Your task to perform on an android device: View the shopping cart on target.com. Add "razer blackwidow" to the cart on target.com Image 0: 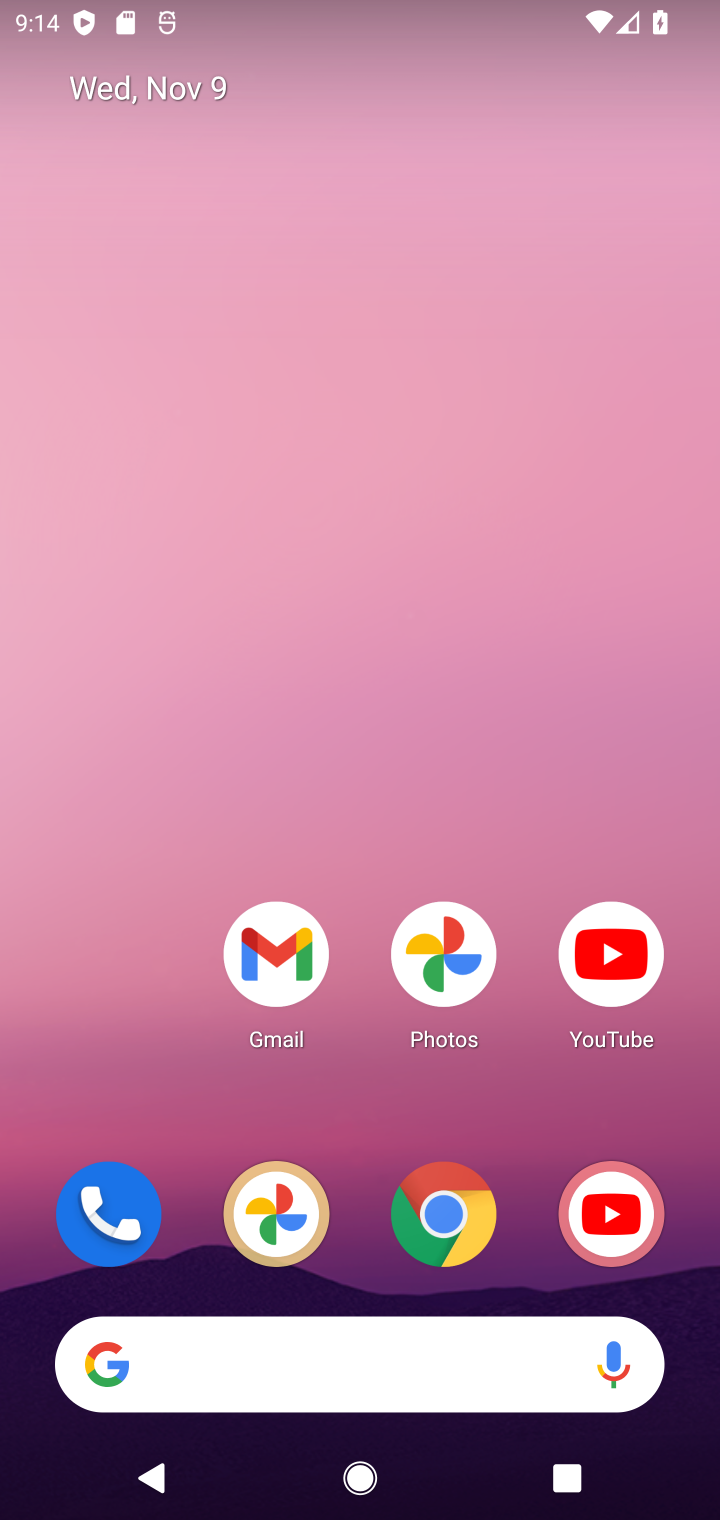
Step 0: drag from (396, 542) to (355, 50)
Your task to perform on an android device: View the shopping cart on target.com. Add "razer blackwidow" to the cart on target.com Image 1: 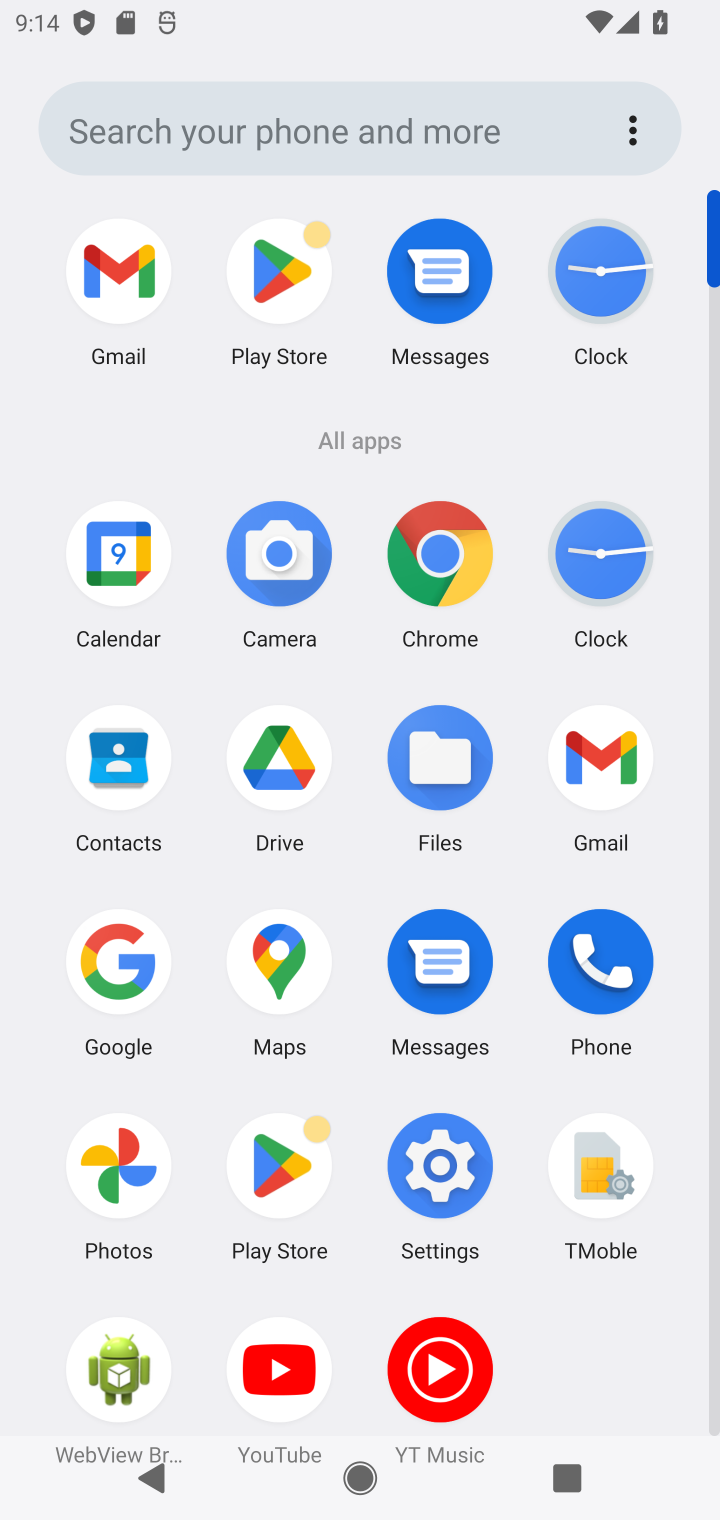
Step 1: click (442, 576)
Your task to perform on an android device: View the shopping cart on target.com. Add "razer blackwidow" to the cart on target.com Image 2: 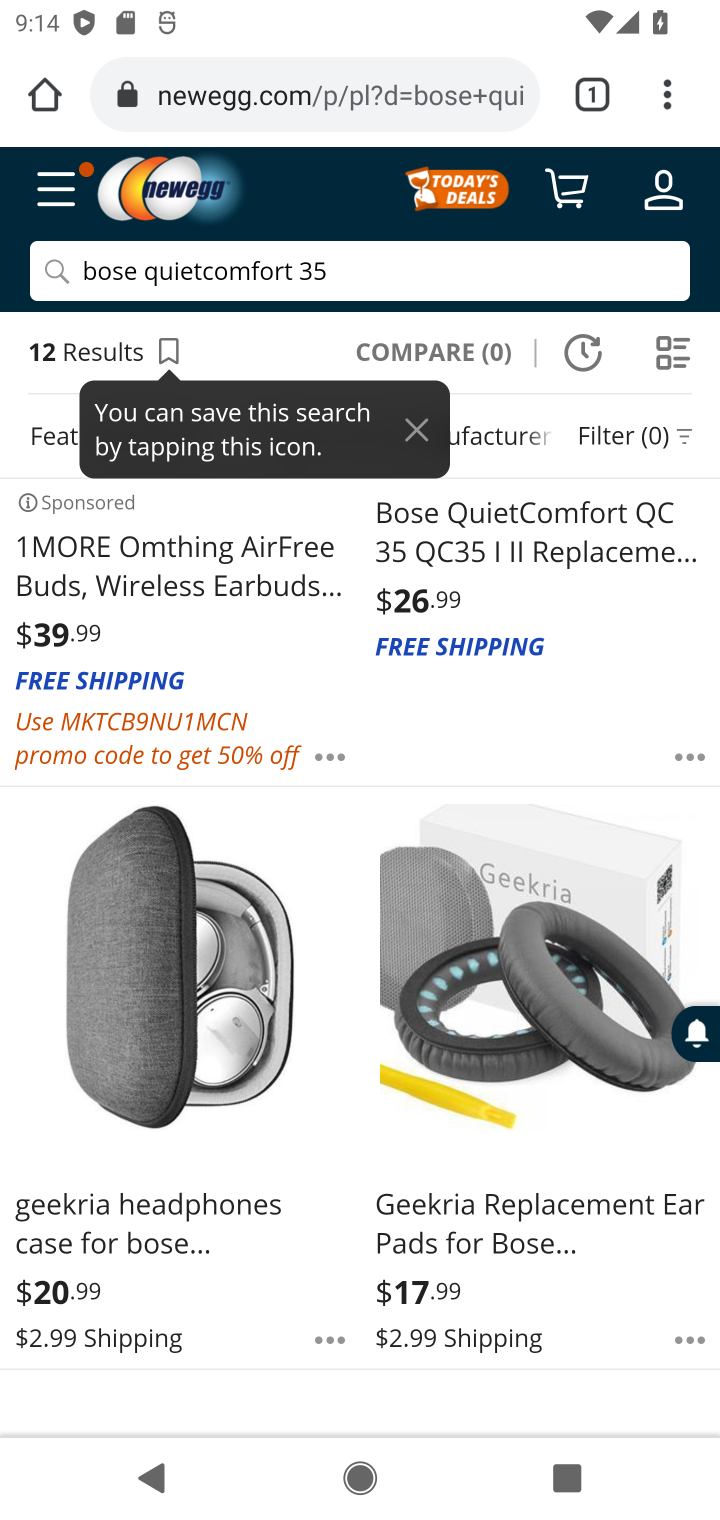
Step 2: click (434, 82)
Your task to perform on an android device: View the shopping cart on target.com. Add "razer blackwidow" to the cart on target.com Image 3: 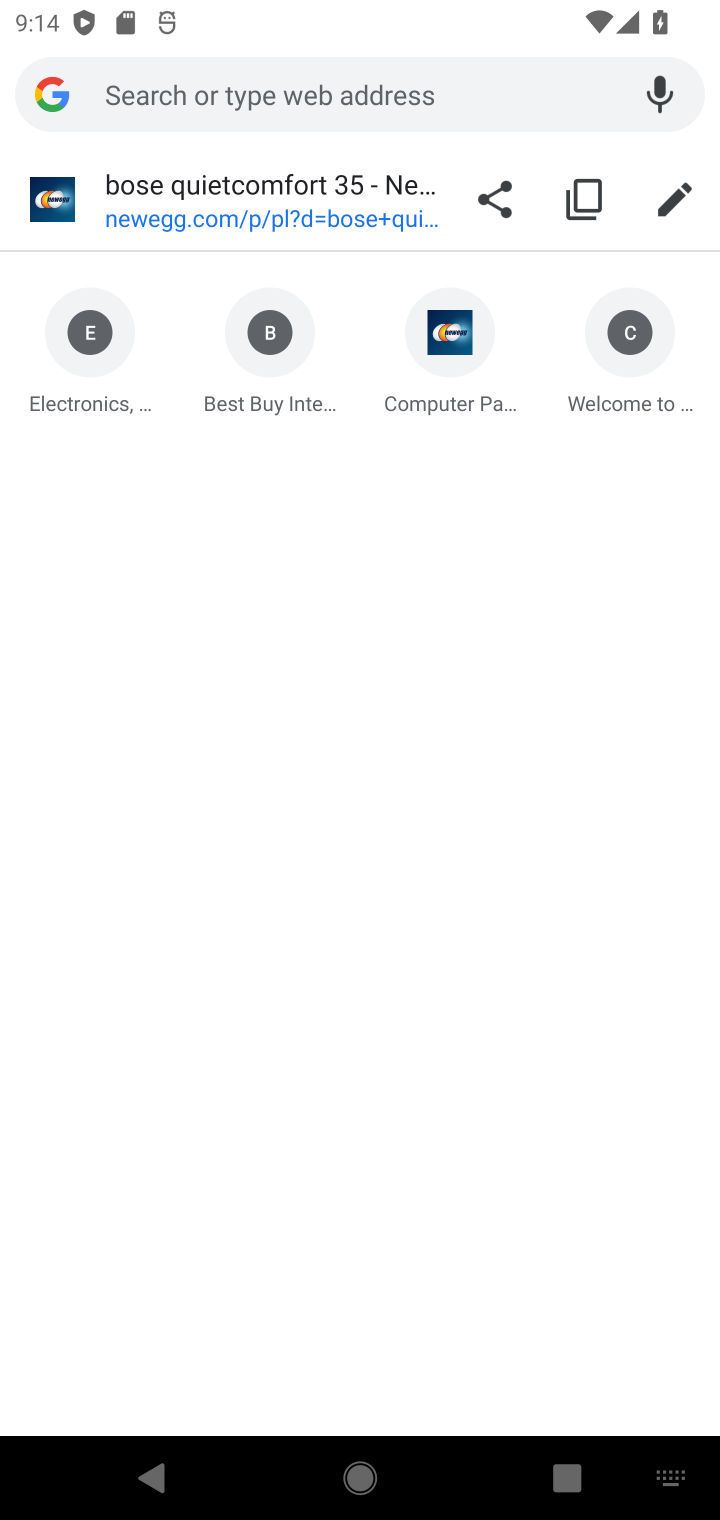
Step 3: type "target.com"
Your task to perform on an android device: View the shopping cart on target.com. Add "razer blackwidow" to the cart on target.com Image 4: 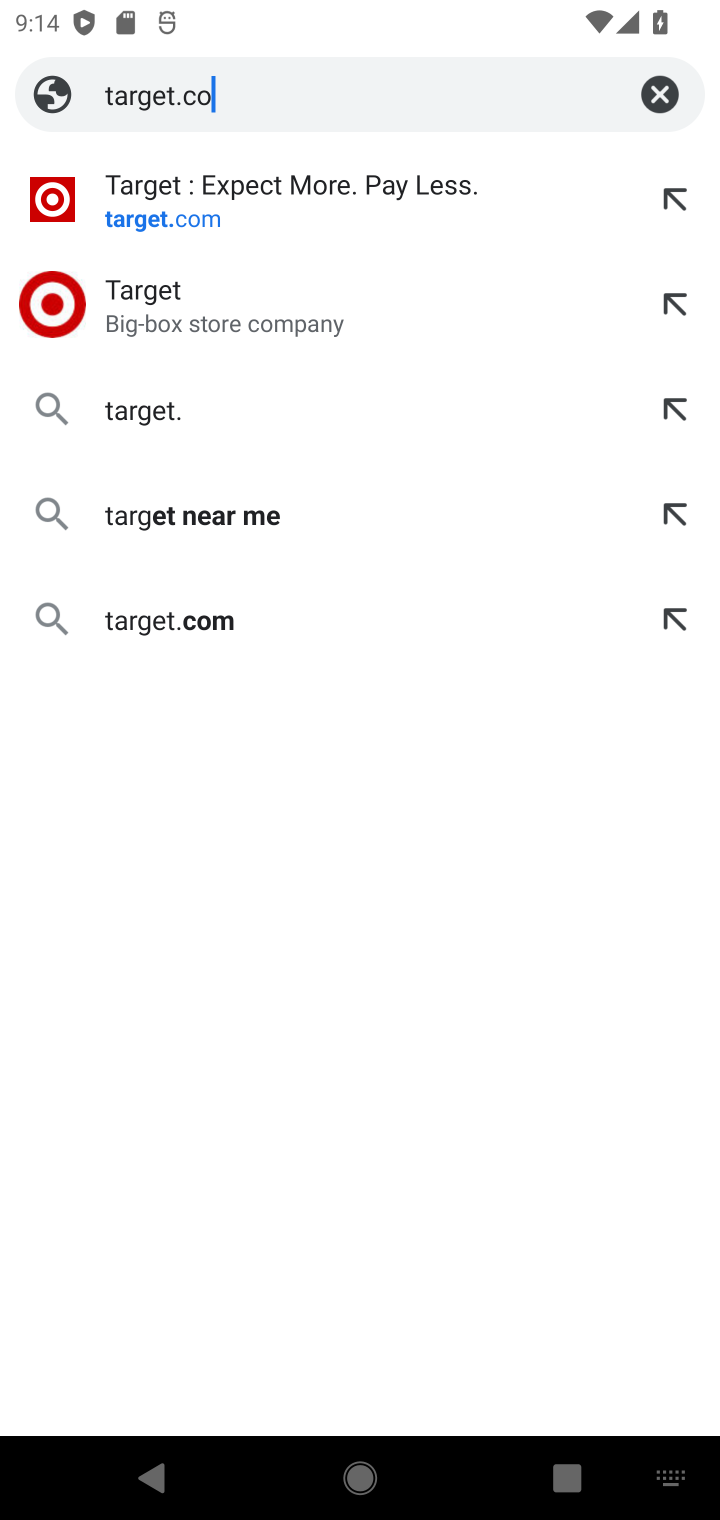
Step 4: press enter
Your task to perform on an android device: View the shopping cart on target.com. Add "razer blackwidow" to the cart on target.com Image 5: 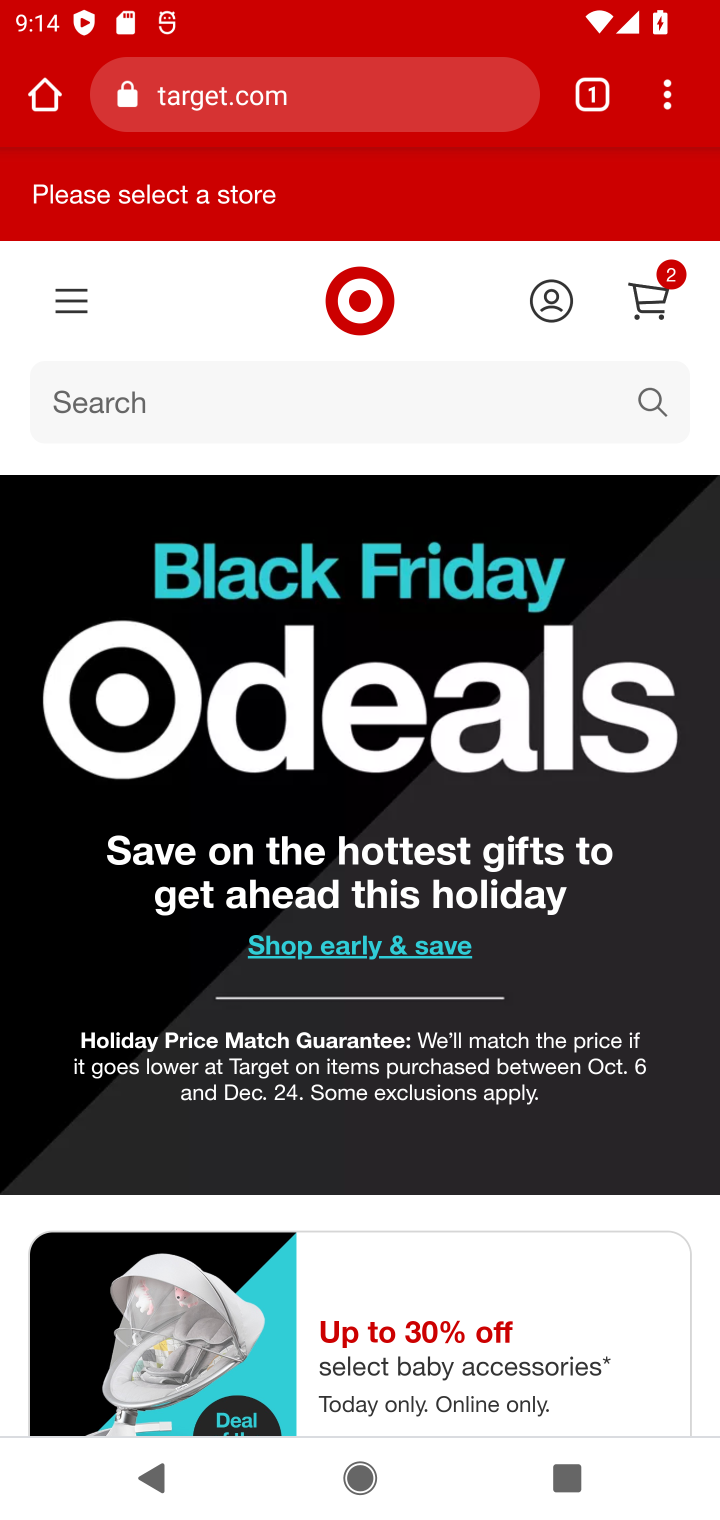
Step 5: click (651, 299)
Your task to perform on an android device: View the shopping cart on target.com. Add "razer blackwidow" to the cart on target.com Image 6: 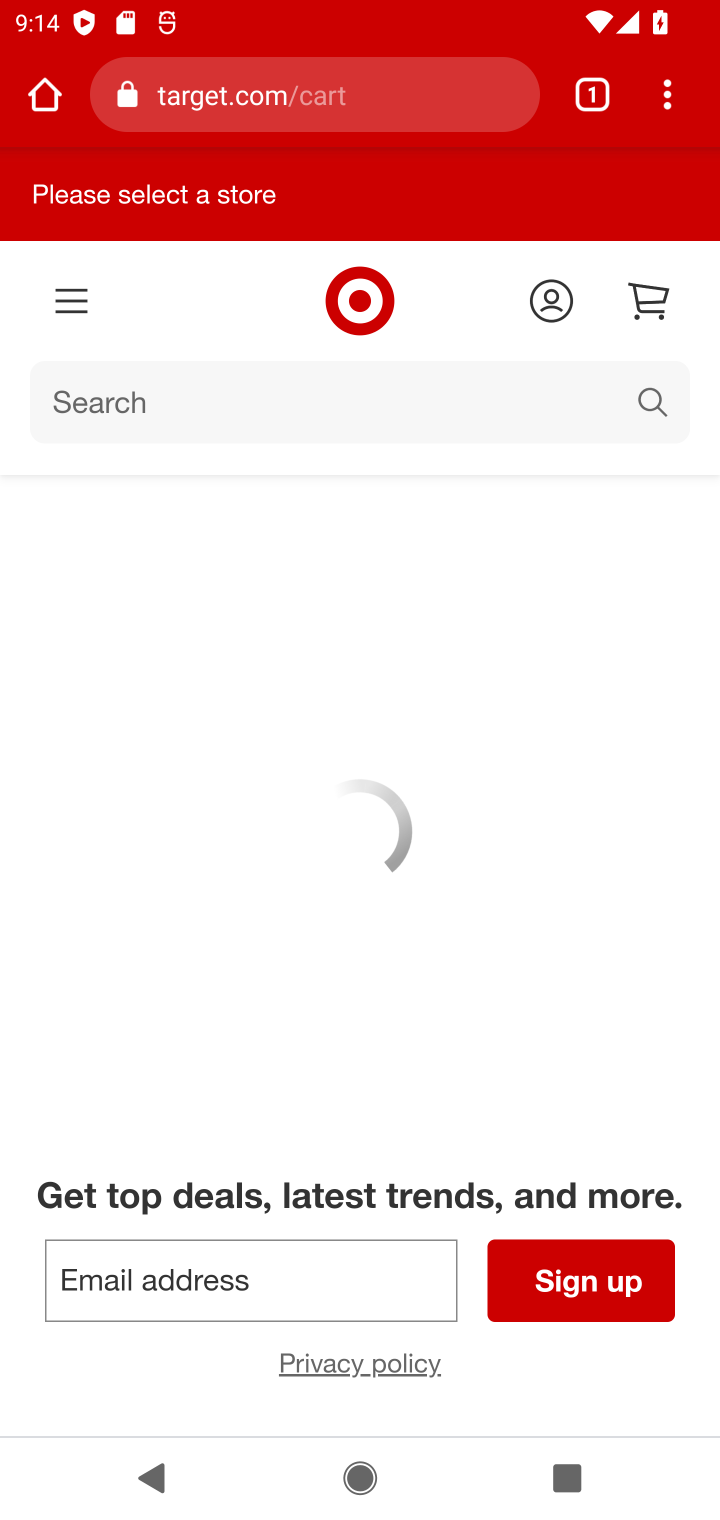
Step 6: click (450, 407)
Your task to perform on an android device: View the shopping cart on target.com. Add "razer blackwidow" to the cart on target.com Image 7: 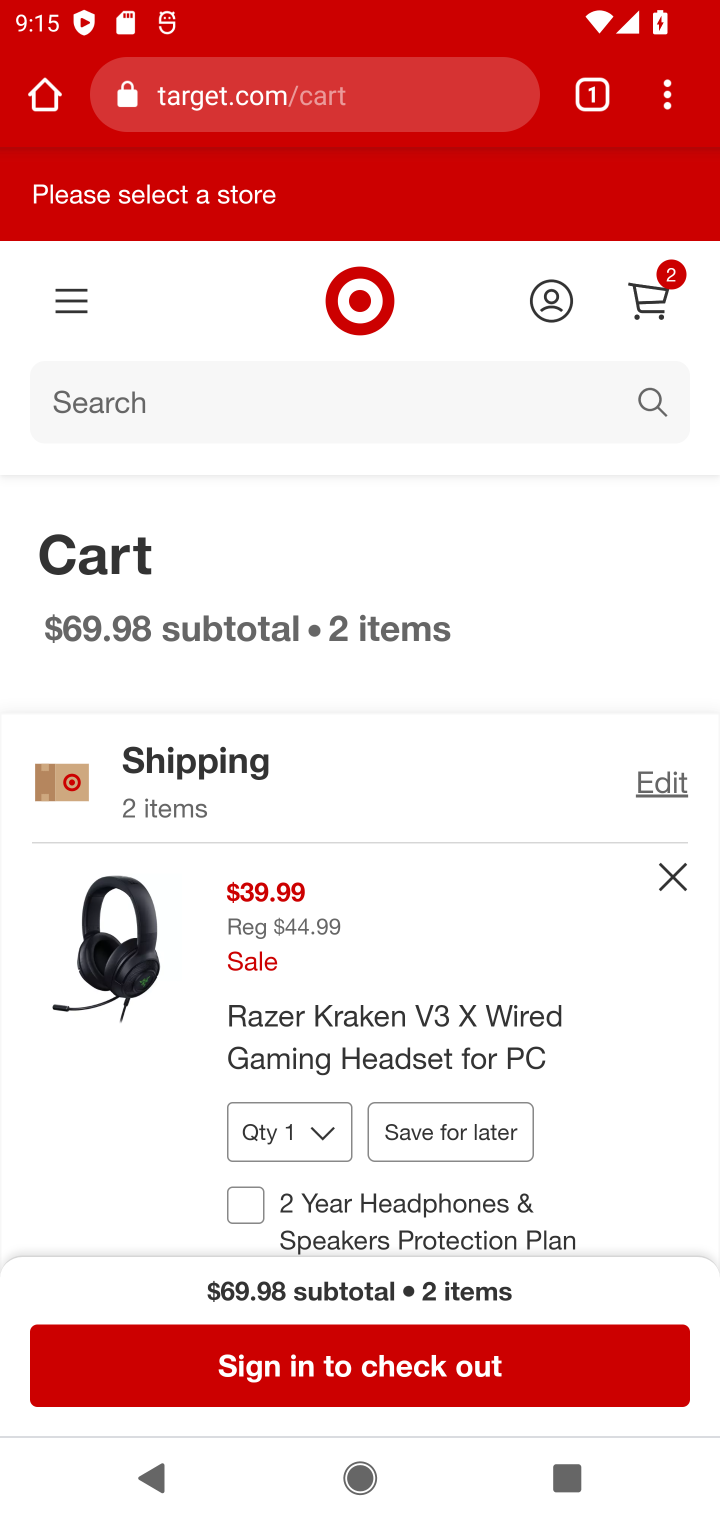
Step 7: type "razer blackwidow"
Your task to perform on an android device: View the shopping cart on target.com. Add "razer blackwidow" to the cart on target.com Image 8: 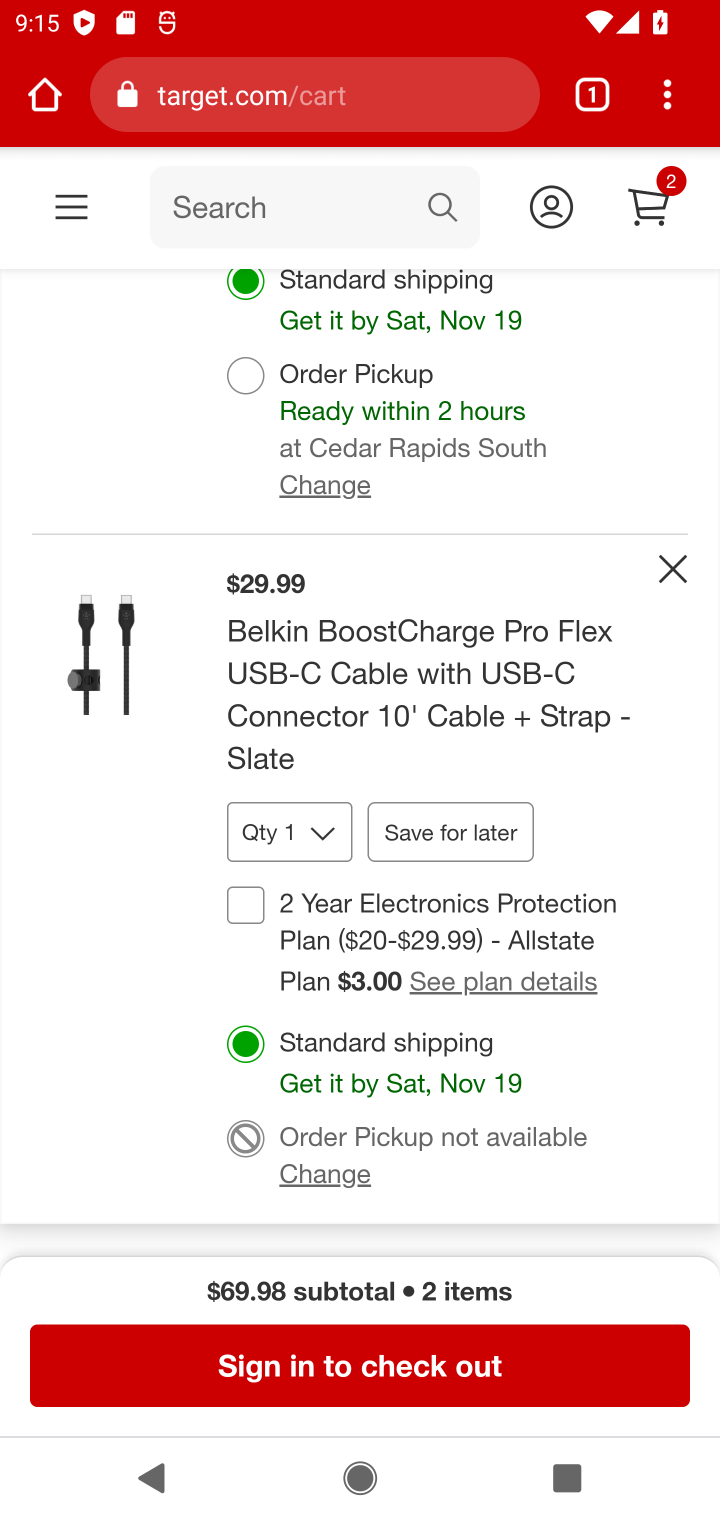
Step 8: click (658, 209)
Your task to perform on an android device: View the shopping cart on target.com. Add "razer blackwidow" to the cart on target.com Image 9: 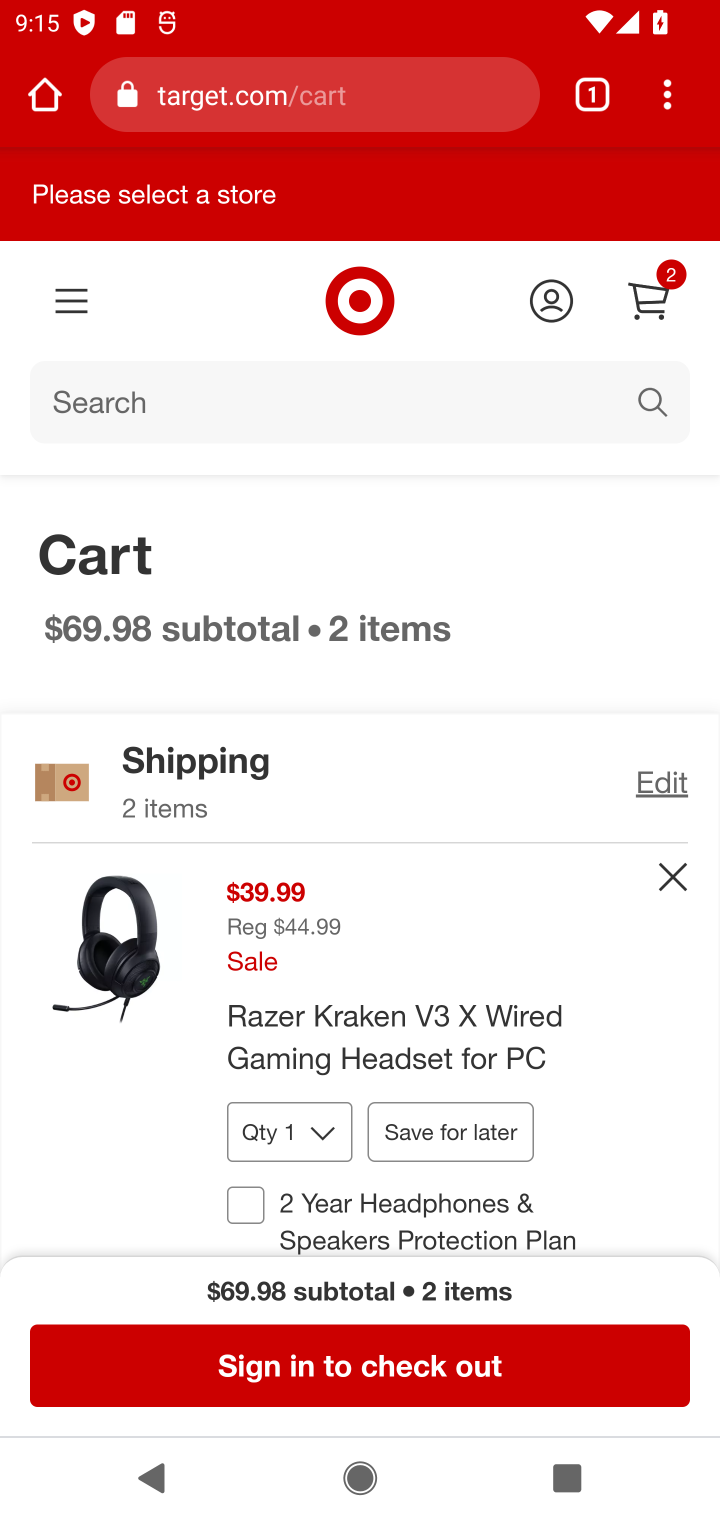
Step 9: press back button
Your task to perform on an android device: View the shopping cart on target.com. Add "razer blackwidow" to the cart on target.com Image 10: 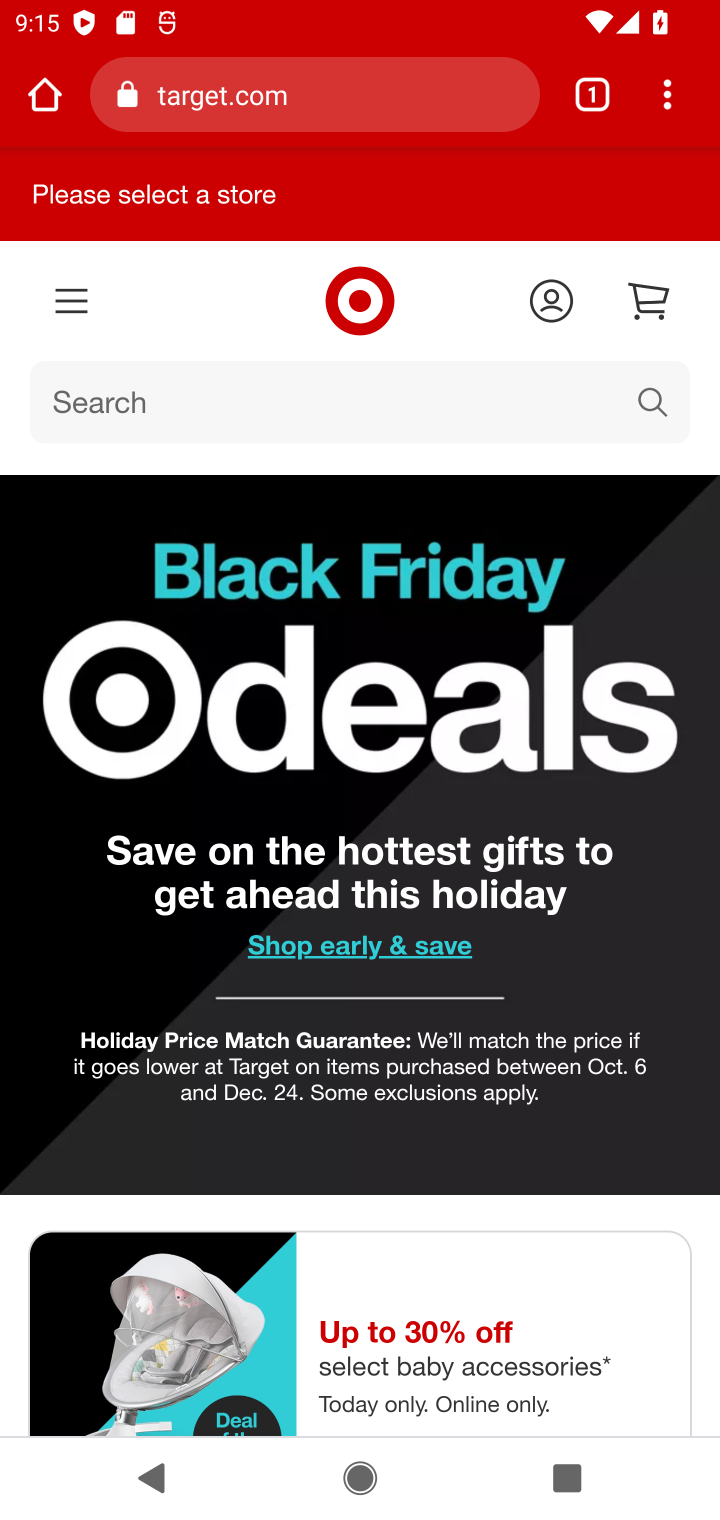
Step 10: click (501, 420)
Your task to perform on an android device: View the shopping cart on target.com. Add "razer blackwidow" to the cart on target.com Image 11: 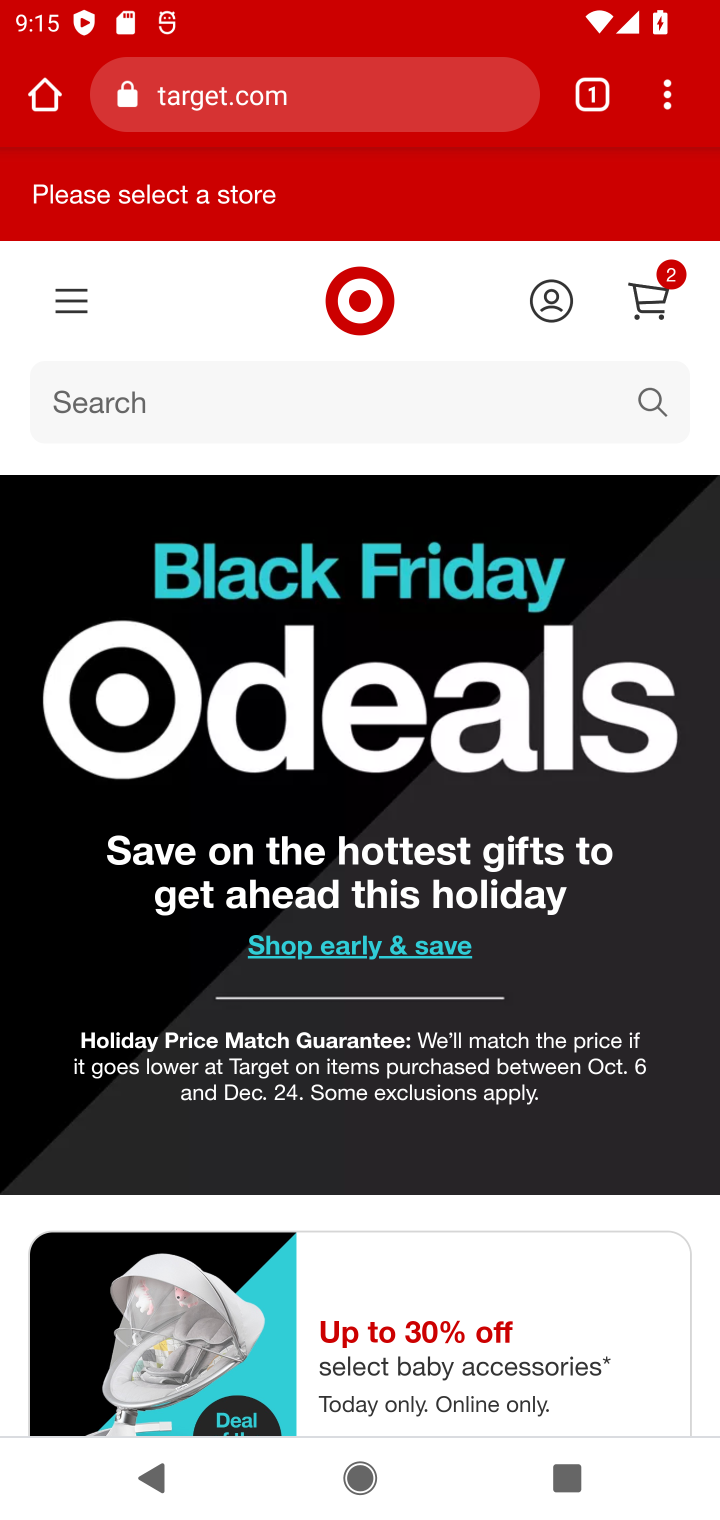
Step 11: type "razer"
Your task to perform on an android device: View the shopping cart on target.com. Add "razer blackwidow" to the cart on target.com Image 12: 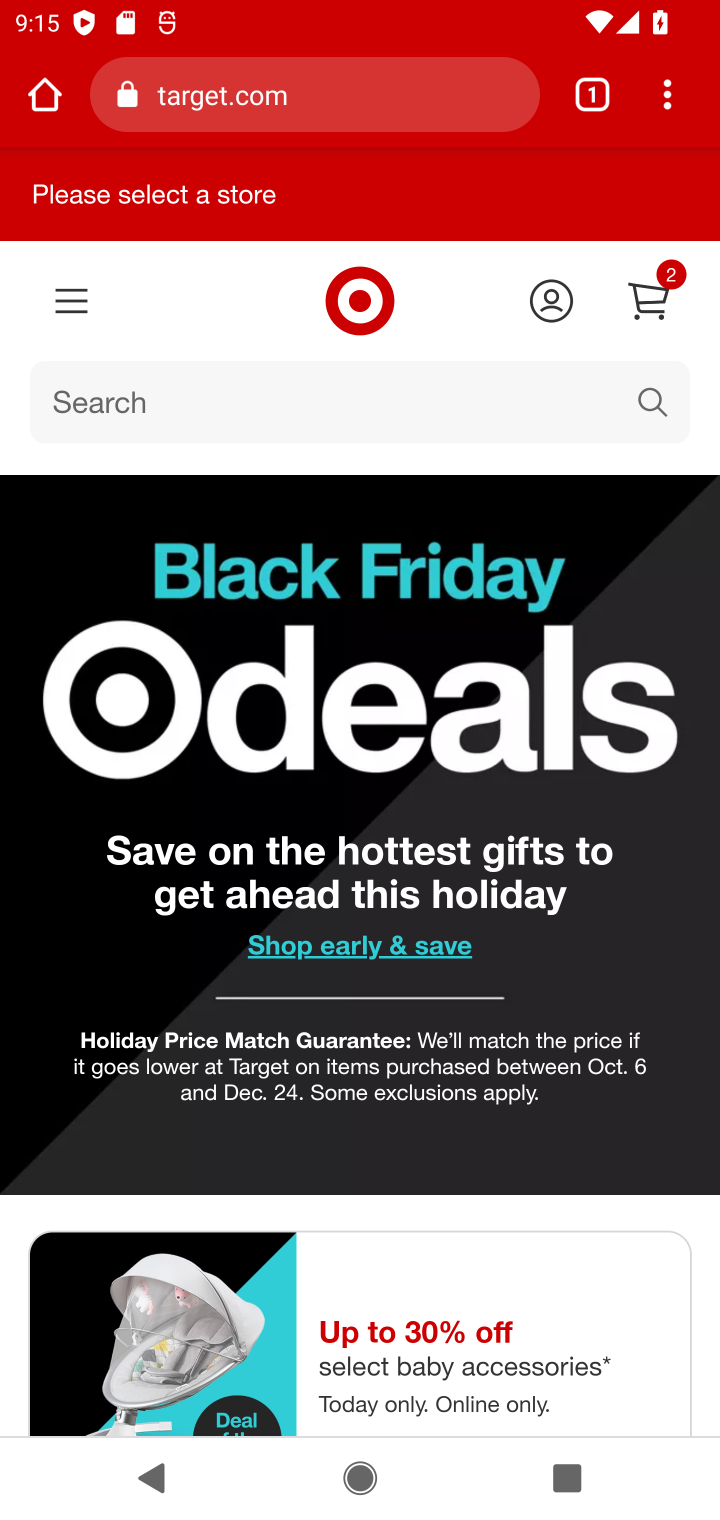
Step 12: click (380, 406)
Your task to perform on an android device: View the shopping cart on target.com. Add "razer blackwidow" to the cart on target.com Image 13: 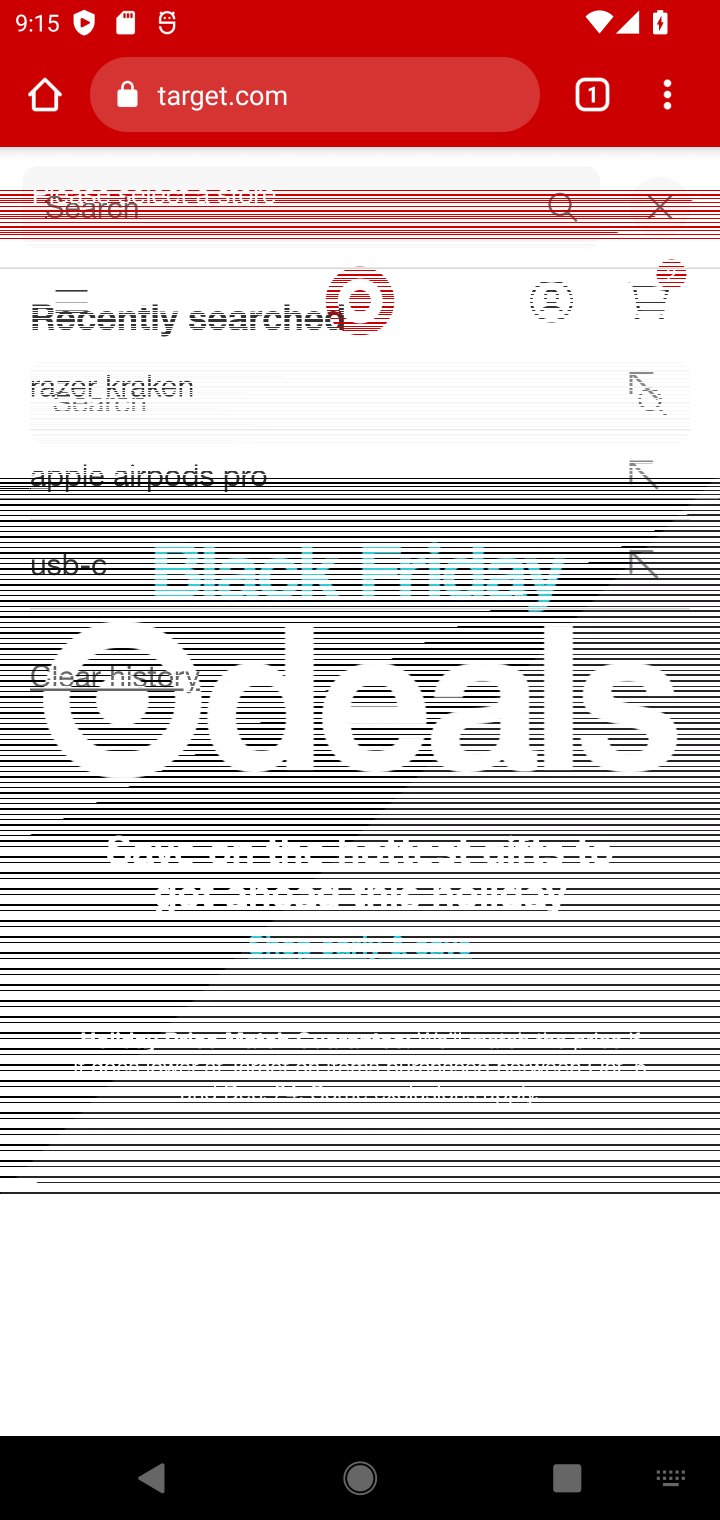
Step 13: type "razer  blackwidow"
Your task to perform on an android device: View the shopping cart on target.com. Add "razer blackwidow" to the cart on target.com Image 14: 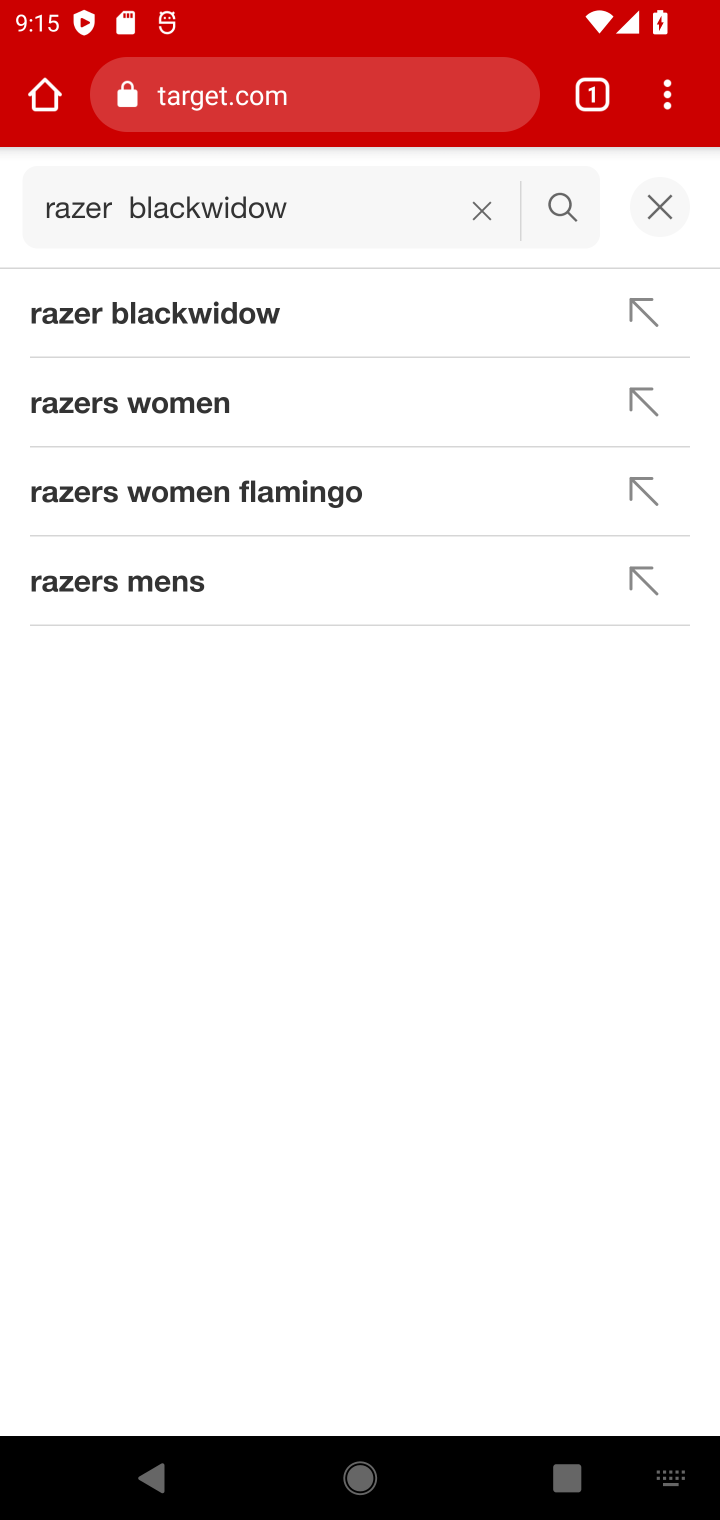
Step 14: press enter
Your task to perform on an android device: View the shopping cart on target.com. Add "razer blackwidow" to the cart on target.com Image 15: 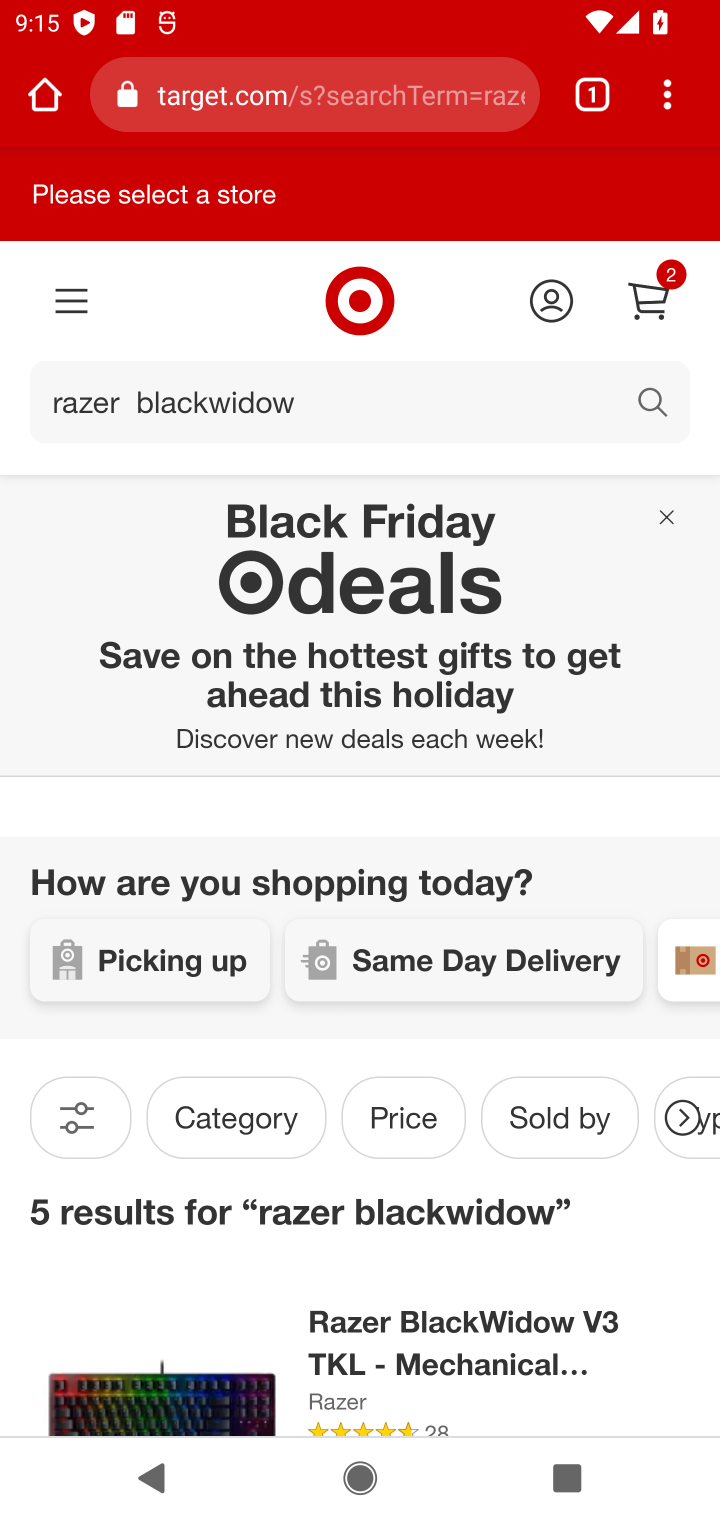
Step 15: drag from (285, 1193) to (409, 429)
Your task to perform on an android device: View the shopping cart on target.com. Add "razer blackwidow" to the cart on target.com Image 16: 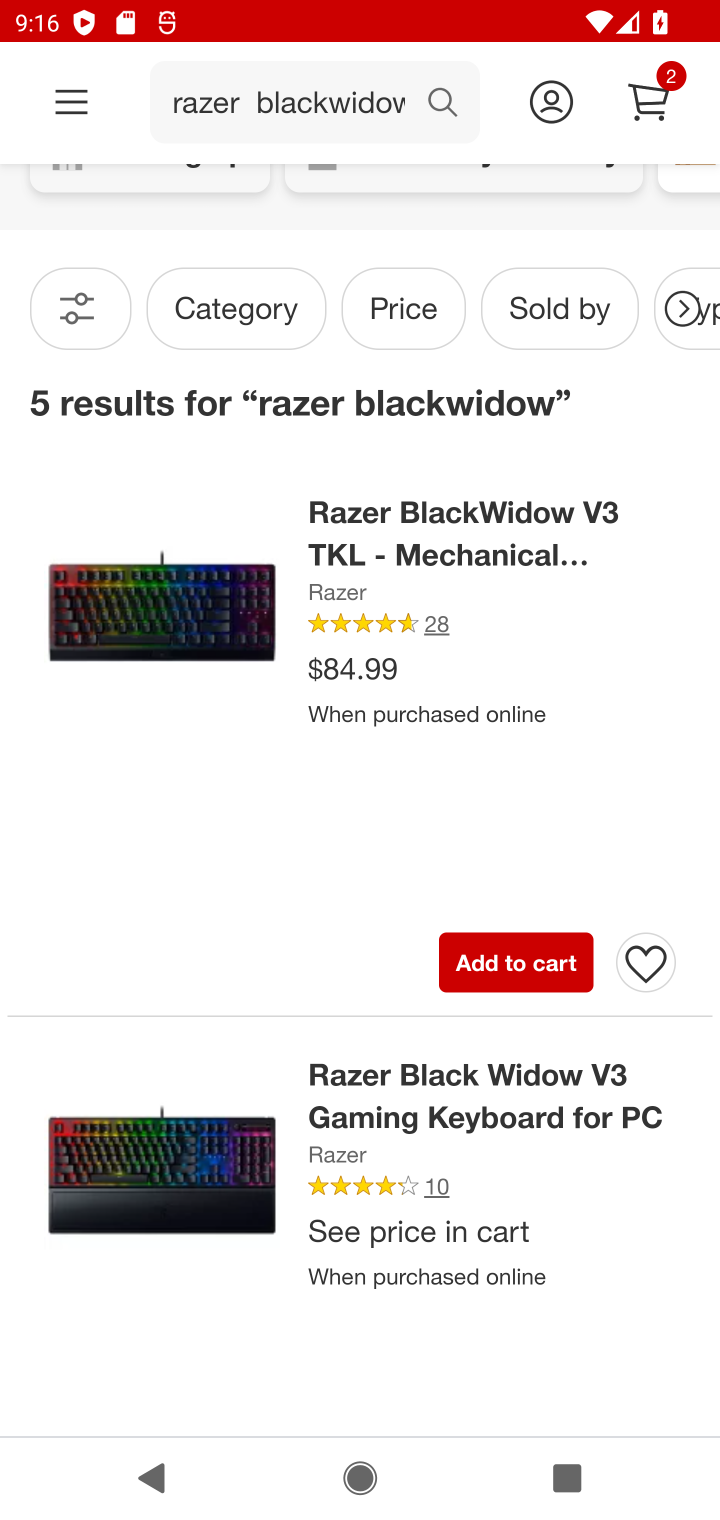
Step 16: click (491, 970)
Your task to perform on an android device: View the shopping cart on target.com. Add "razer blackwidow" to the cart on target.com Image 17: 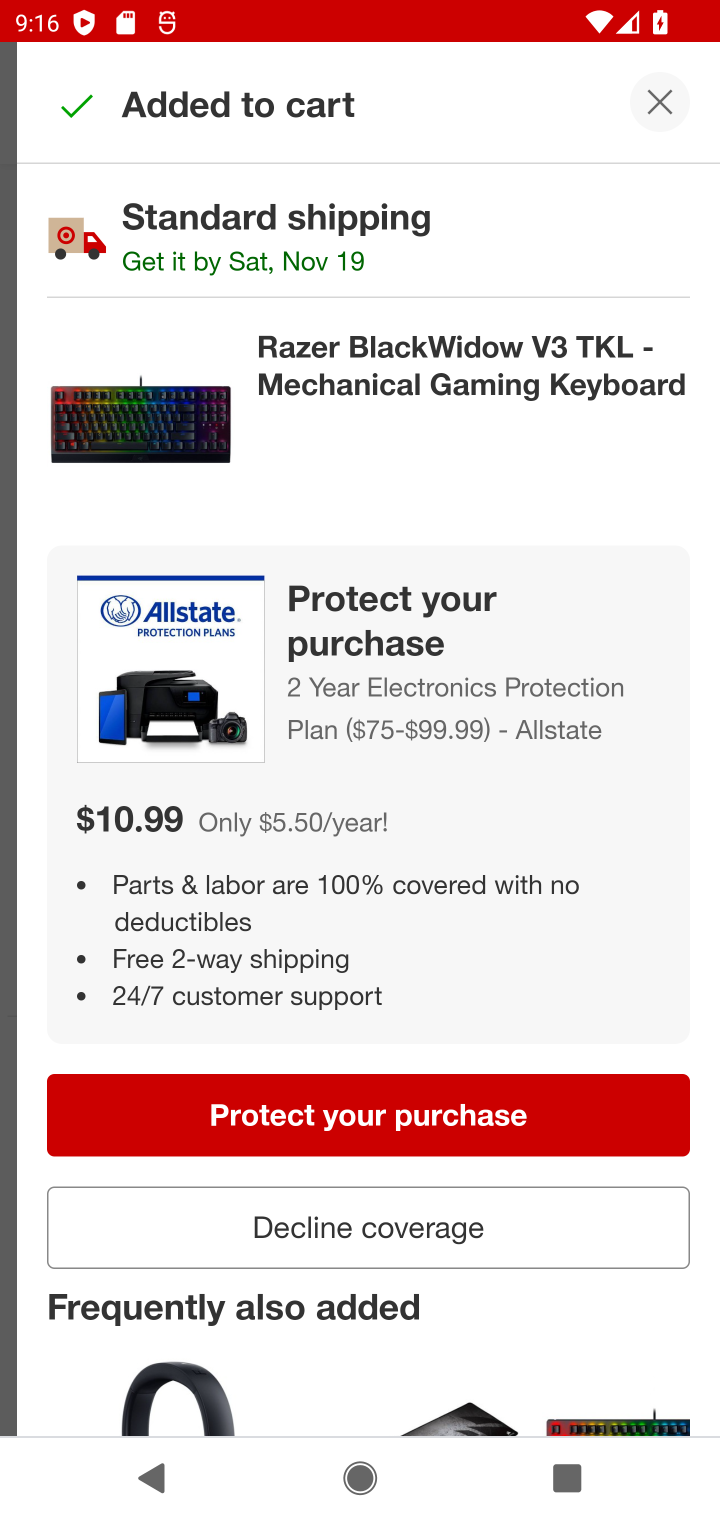
Step 17: task complete